Your task to perform on an android device: turn off data saver in the chrome app Image 0: 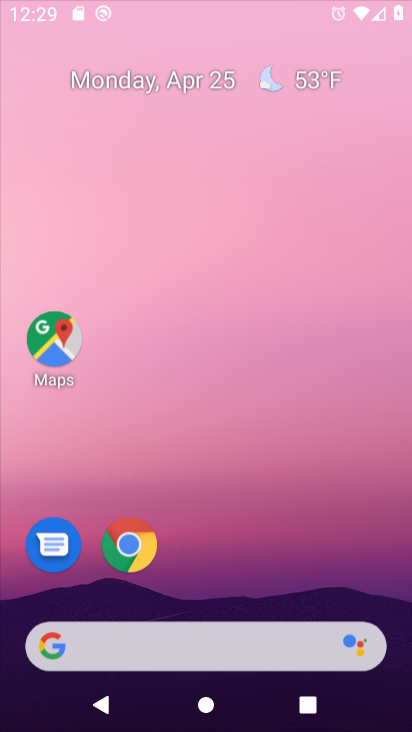
Step 0: click (208, 147)
Your task to perform on an android device: turn off data saver in the chrome app Image 1: 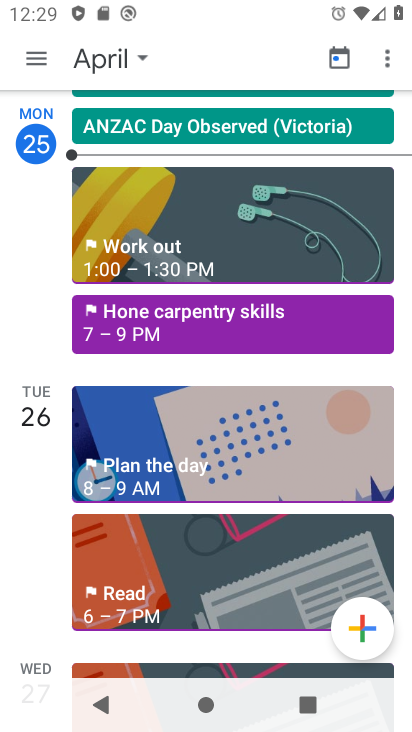
Step 1: press home button
Your task to perform on an android device: turn off data saver in the chrome app Image 2: 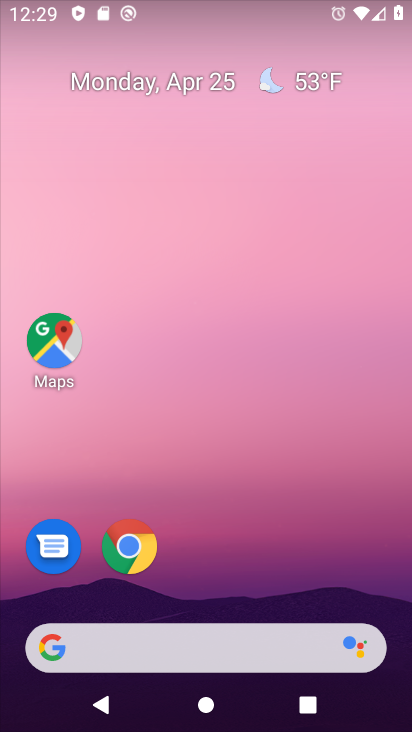
Step 2: click (142, 544)
Your task to perform on an android device: turn off data saver in the chrome app Image 3: 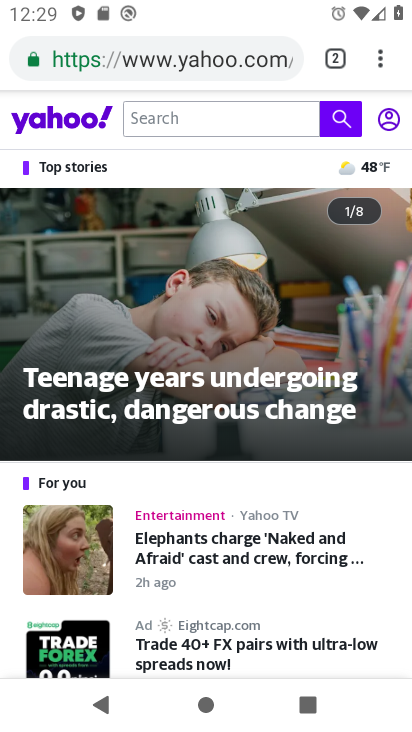
Step 3: drag from (376, 61) to (184, 572)
Your task to perform on an android device: turn off data saver in the chrome app Image 4: 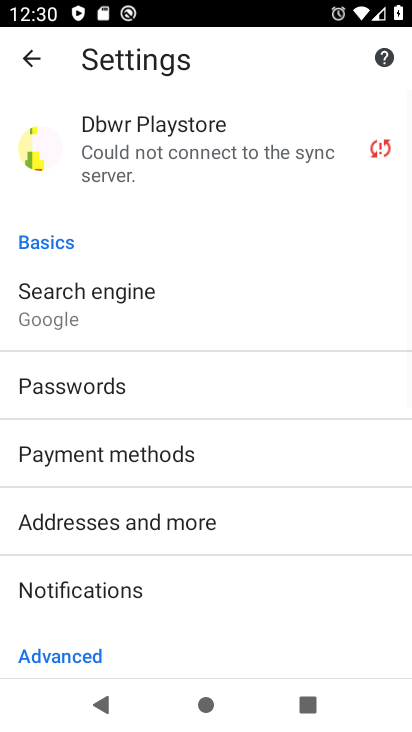
Step 4: drag from (168, 595) to (246, 294)
Your task to perform on an android device: turn off data saver in the chrome app Image 5: 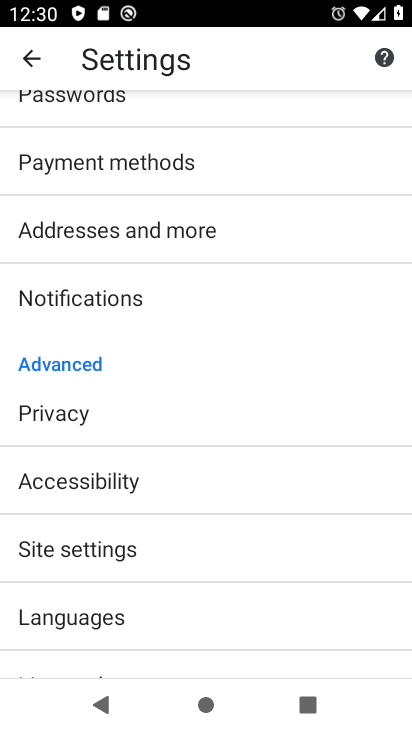
Step 5: click (131, 552)
Your task to perform on an android device: turn off data saver in the chrome app Image 6: 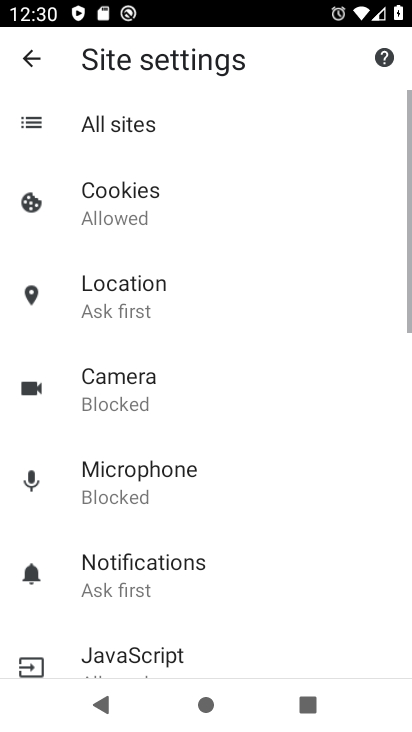
Step 6: click (118, 694)
Your task to perform on an android device: turn off data saver in the chrome app Image 7: 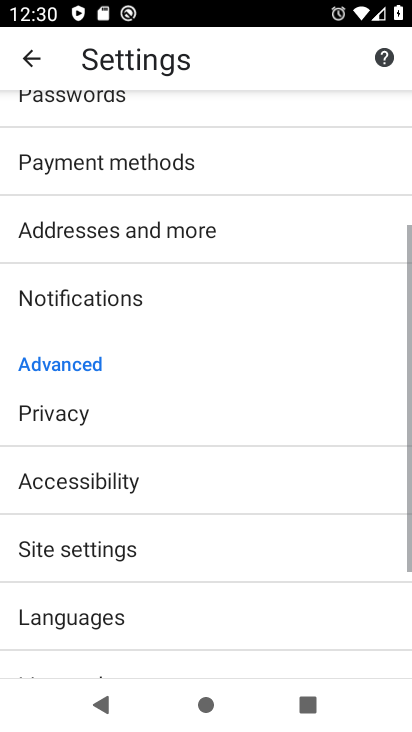
Step 7: drag from (182, 599) to (251, 315)
Your task to perform on an android device: turn off data saver in the chrome app Image 8: 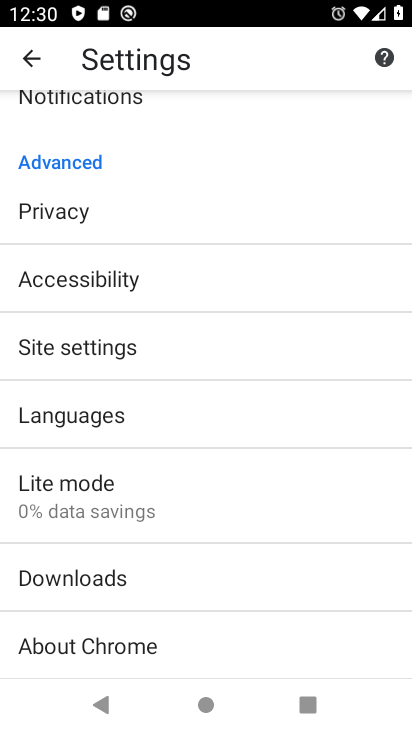
Step 8: click (141, 517)
Your task to perform on an android device: turn off data saver in the chrome app Image 9: 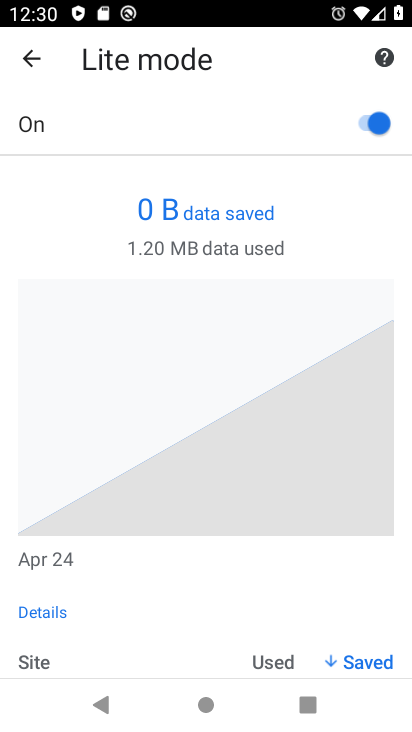
Step 9: click (361, 128)
Your task to perform on an android device: turn off data saver in the chrome app Image 10: 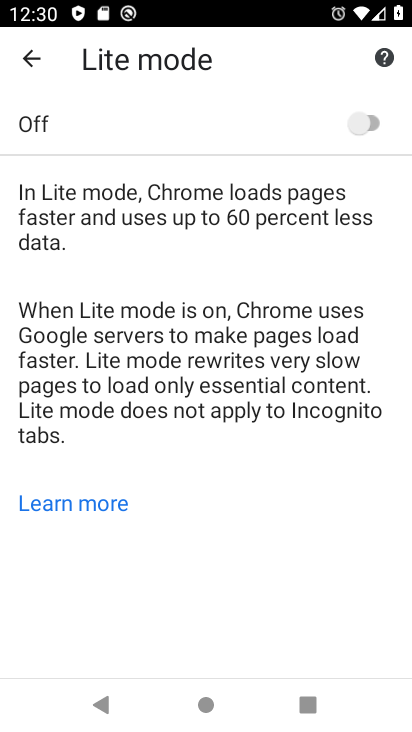
Step 10: task complete